Your task to perform on an android device: toggle airplane mode Image 0: 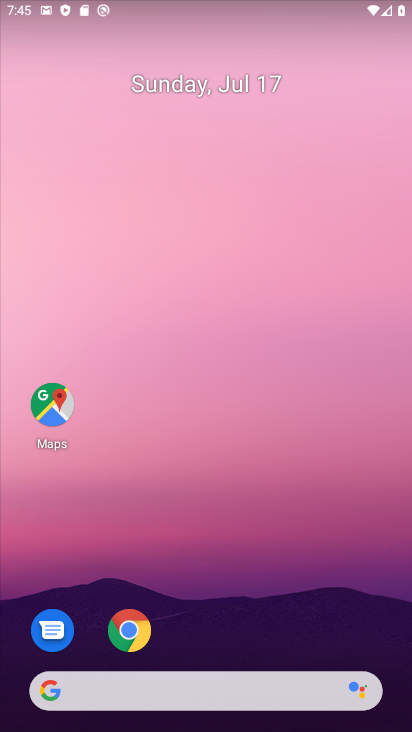
Step 0: drag from (275, 531) to (275, 259)
Your task to perform on an android device: toggle airplane mode Image 1: 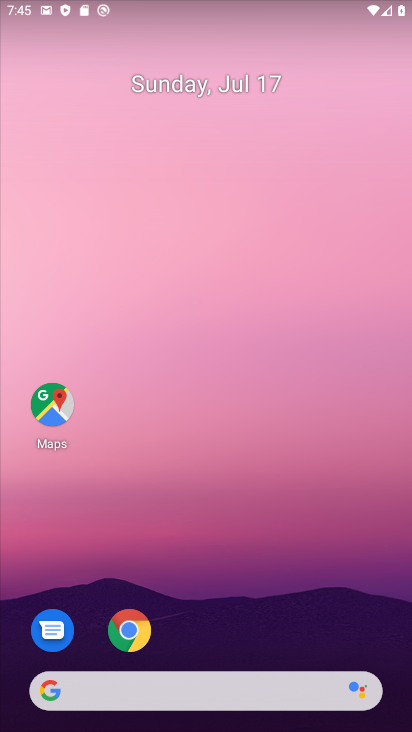
Step 1: drag from (287, 410) to (279, 562)
Your task to perform on an android device: toggle airplane mode Image 2: 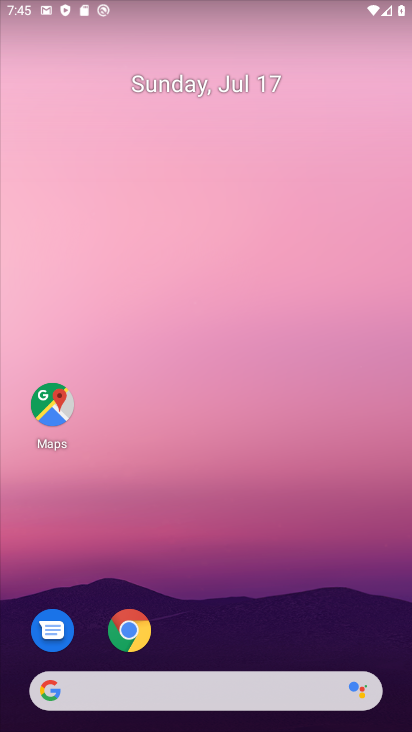
Step 2: drag from (269, 1) to (257, 472)
Your task to perform on an android device: toggle airplane mode Image 3: 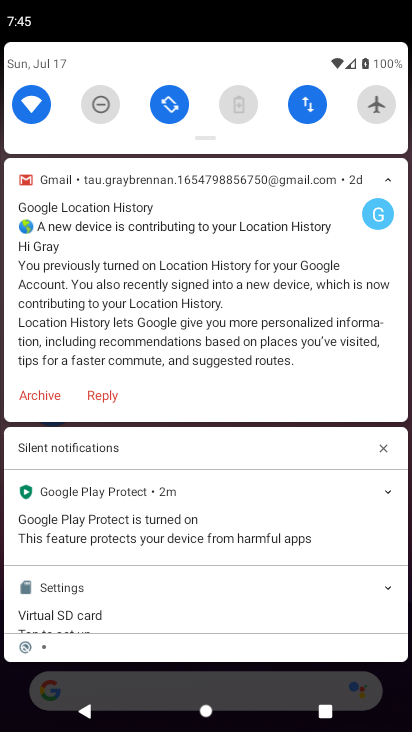
Step 3: click (371, 102)
Your task to perform on an android device: toggle airplane mode Image 4: 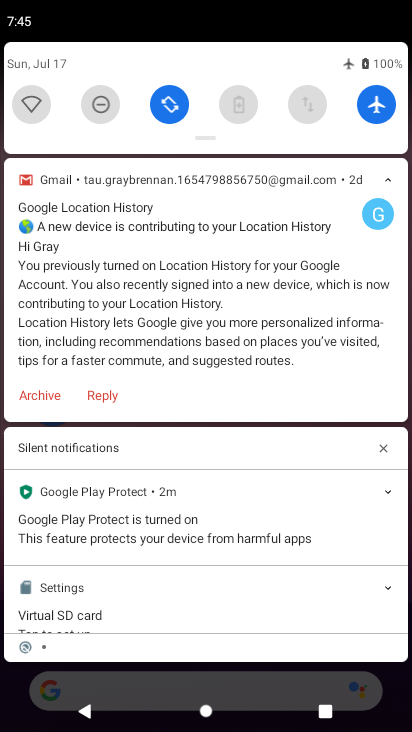
Step 4: task complete